Your task to perform on an android device: Clear the shopping cart on bestbuy.com. Search for beats solo 3 on bestbuy.com, select the first entry, and add it to the cart. Image 0: 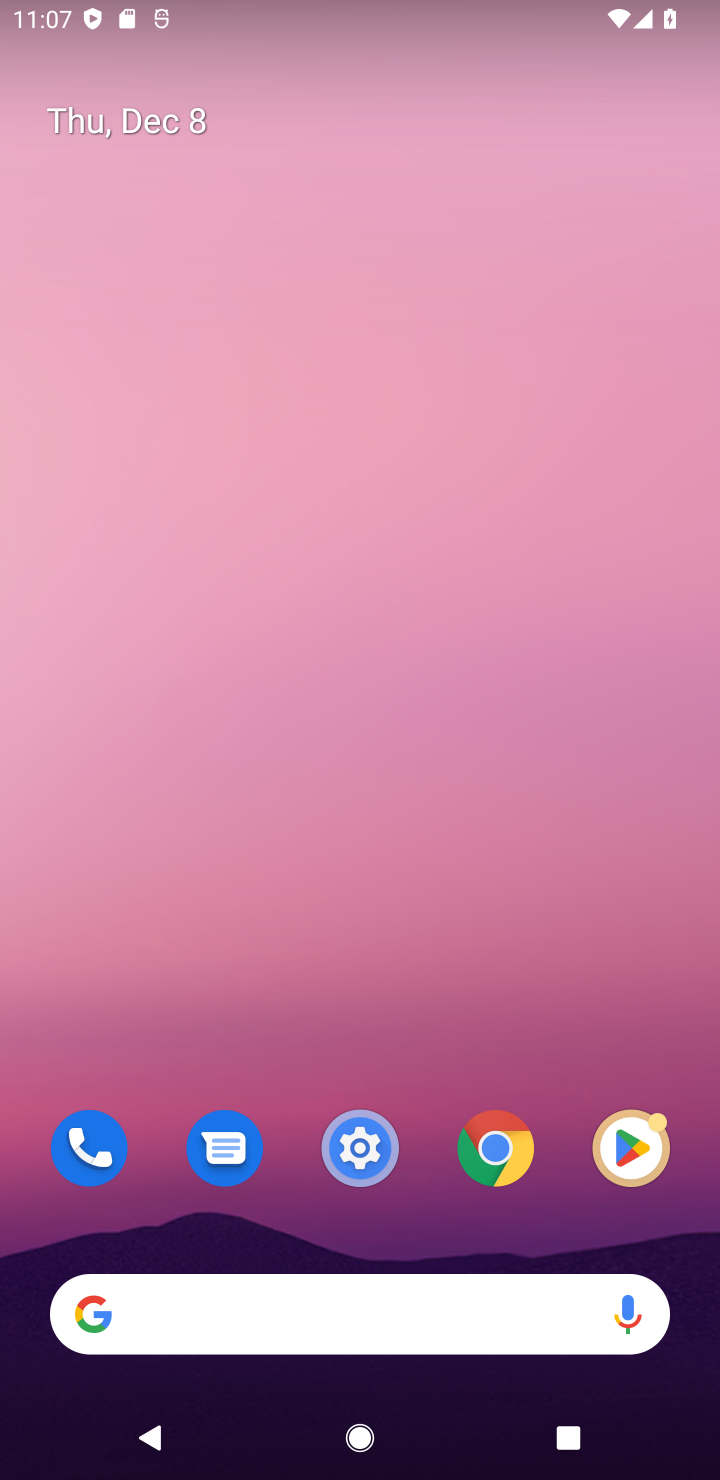
Step 0: click (276, 1279)
Your task to perform on an android device: Clear the shopping cart on bestbuy.com. Search for beats solo 3 on bestbuy.com, select the first entry, and add it to the cart. Image 1: 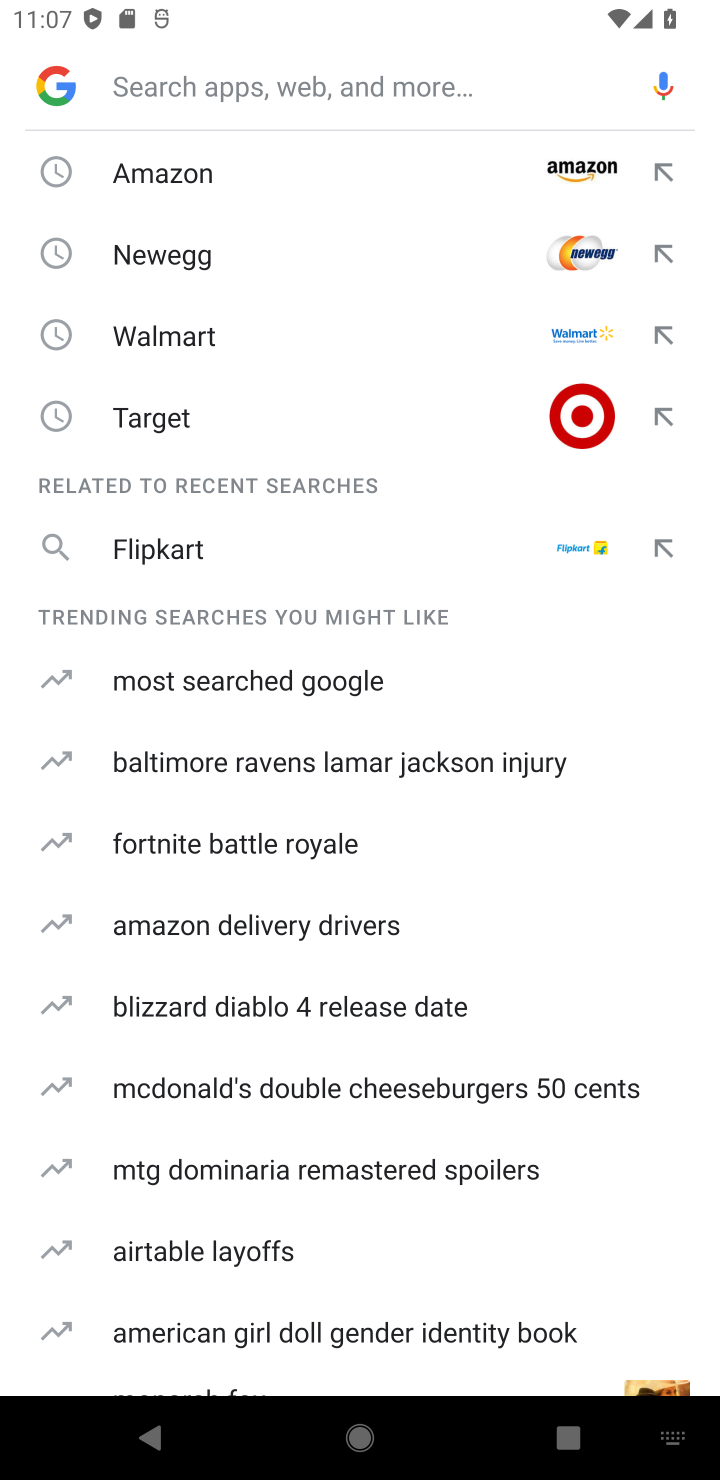
Step 1: type "bestbuy.com"
Your task to perform on an android device: Clear the shopping cart on bestbuy.com. Search for beats solo 3 on bestbuy.com, select the first entry, and add it to the cart. Image 2: 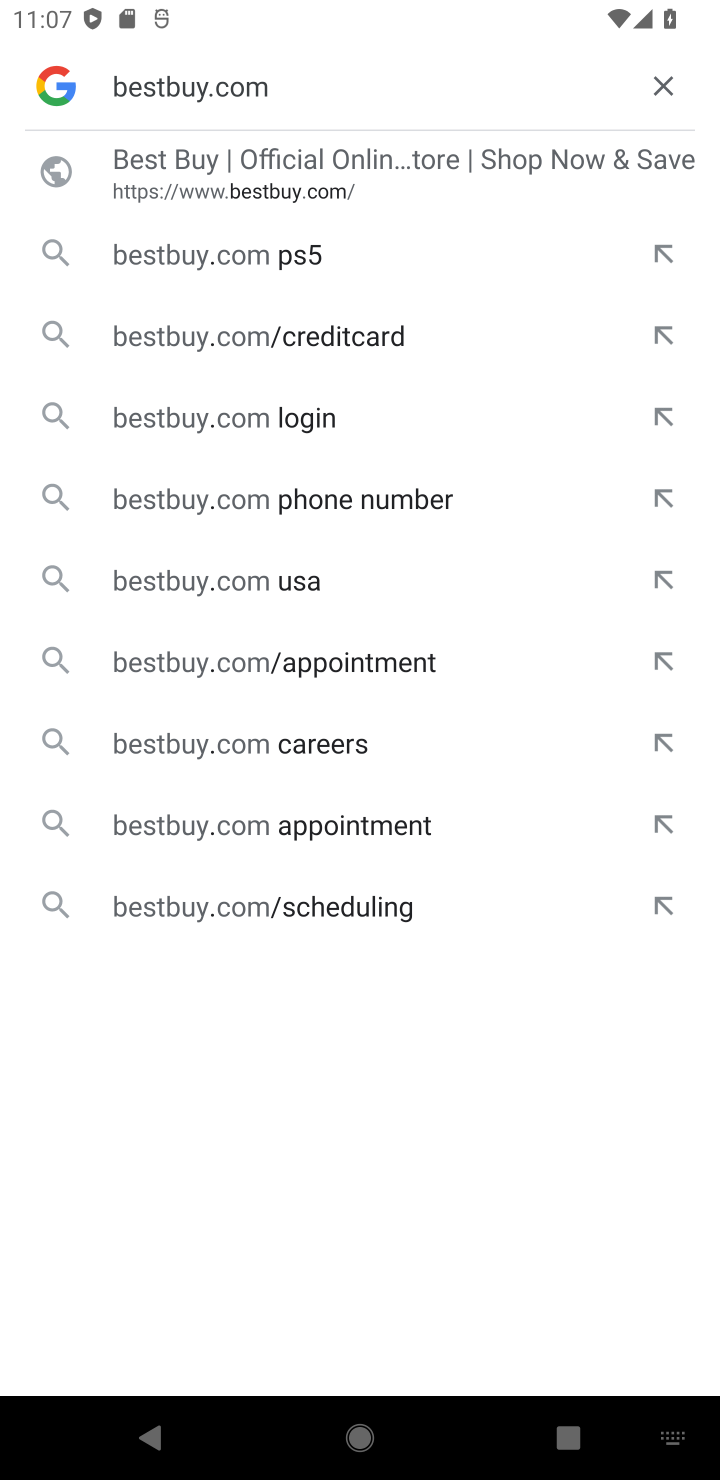
Step 2: click (207, 165)
Your task to perform on an android device: Clear the shopping cart on bestbuy.com. Search for beats solo 3 on bestbuy.com, select the first entry, and add it to the cart. Image 3: 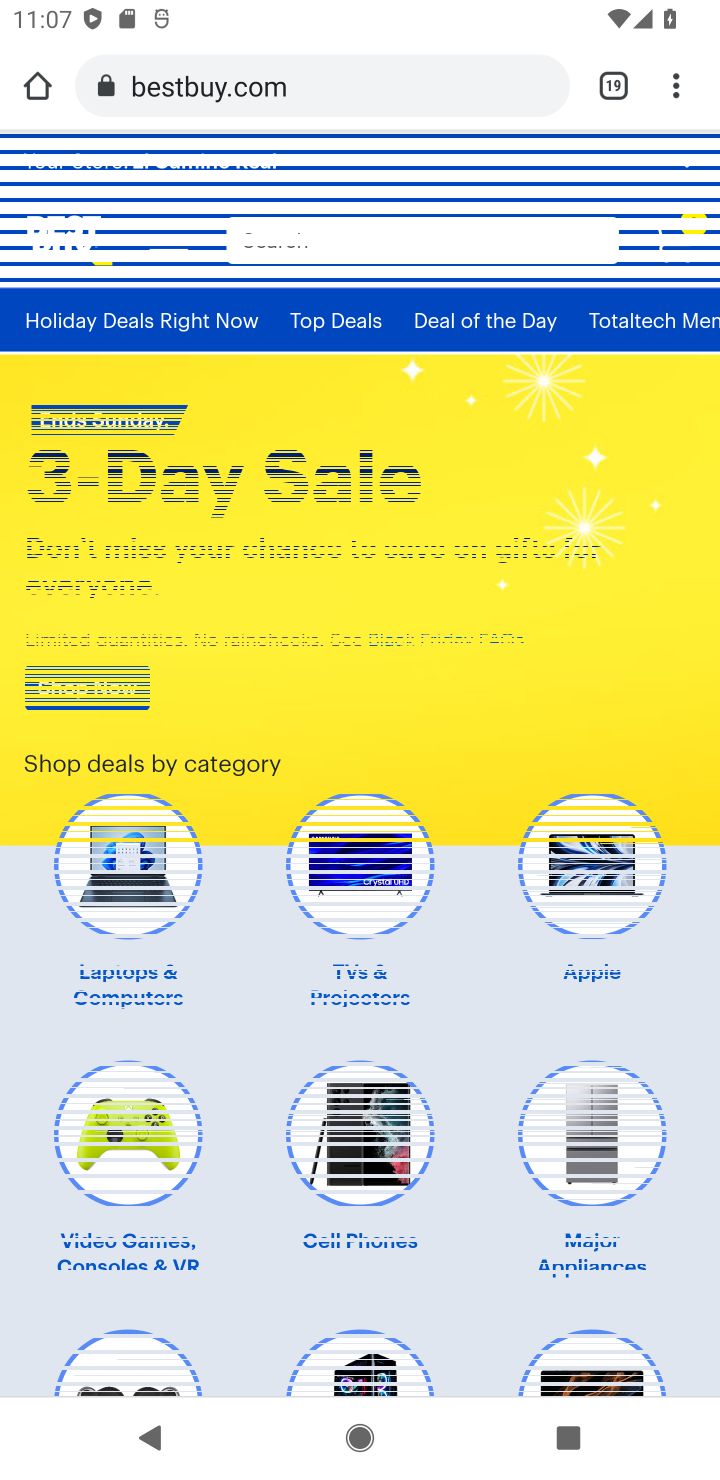
Step 3: click (685, 233)
Your task to perform on an android device: Clear the shopping cart on bestbuy.com. Search for beats solo 3 on bestbuy.com, select the first entry, and add it to the cart. Image 4: 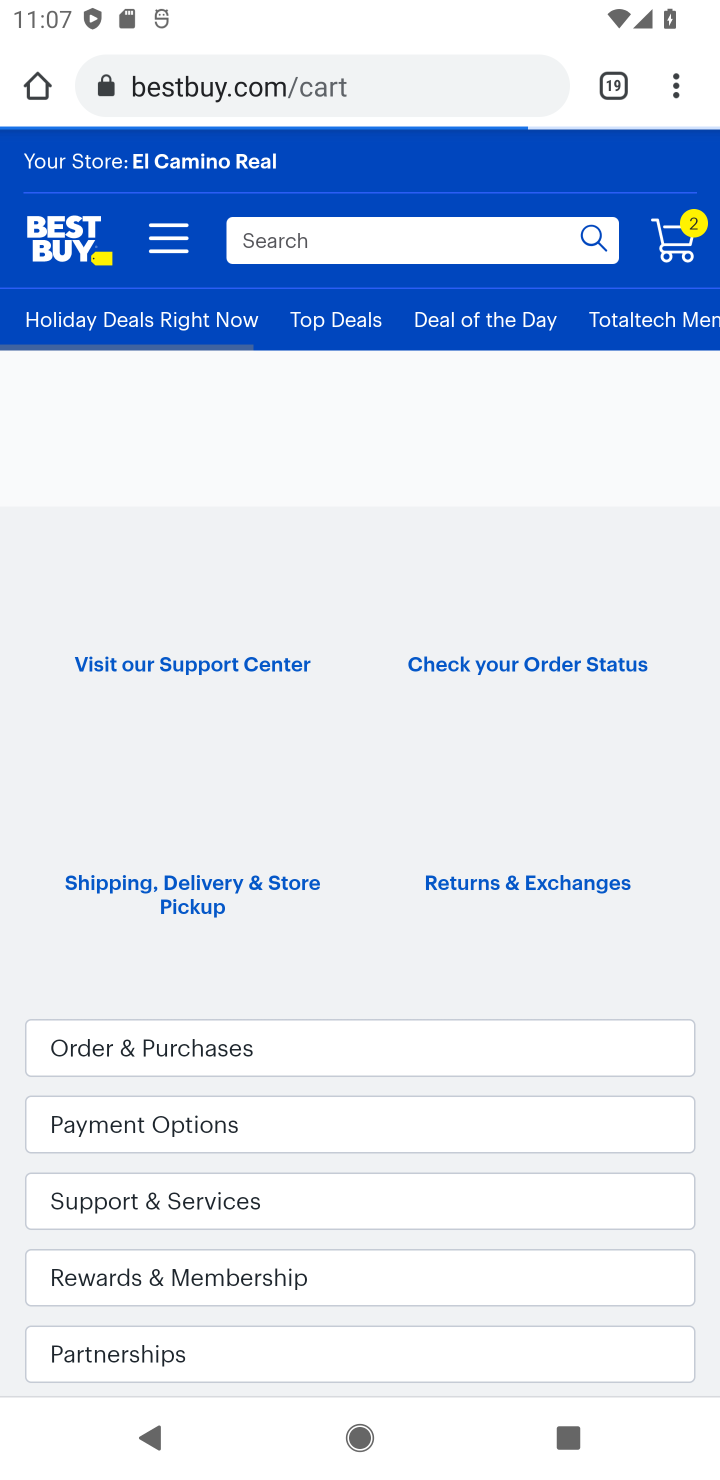
Step 4: click (675, 247)
Your task to perform on an android device: Clear the shopping cart on bestbuy.com. Search for beats solo 3 on bestbuy.com, select the first entry, and add it to the cart. Image 5: 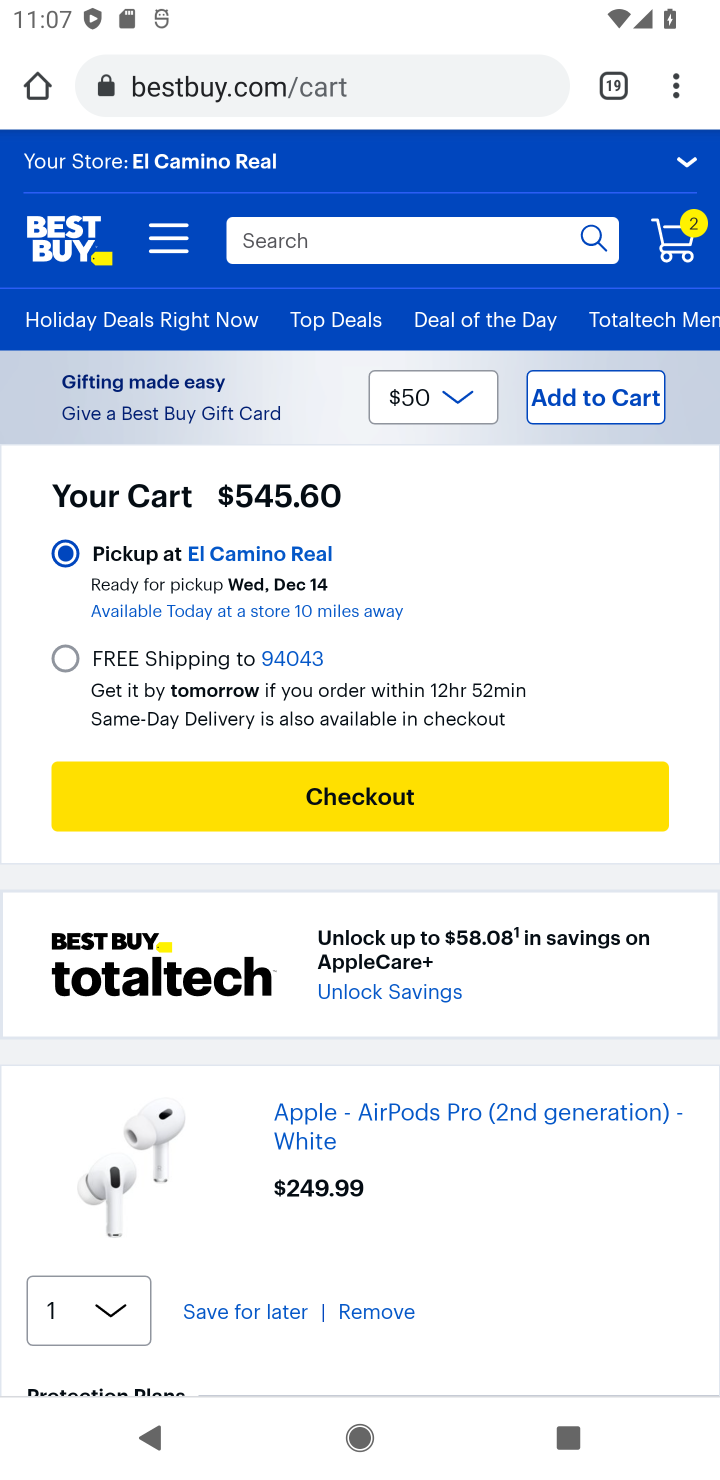
Step 5: drag from (537, 608) to (530, 493)
Your task to perform on an android device: Clear the shopping cart on bestbuy.com. Search for beats solo 3 on bestbuy.com, select the first entry, and add it to the cart. Image 6: 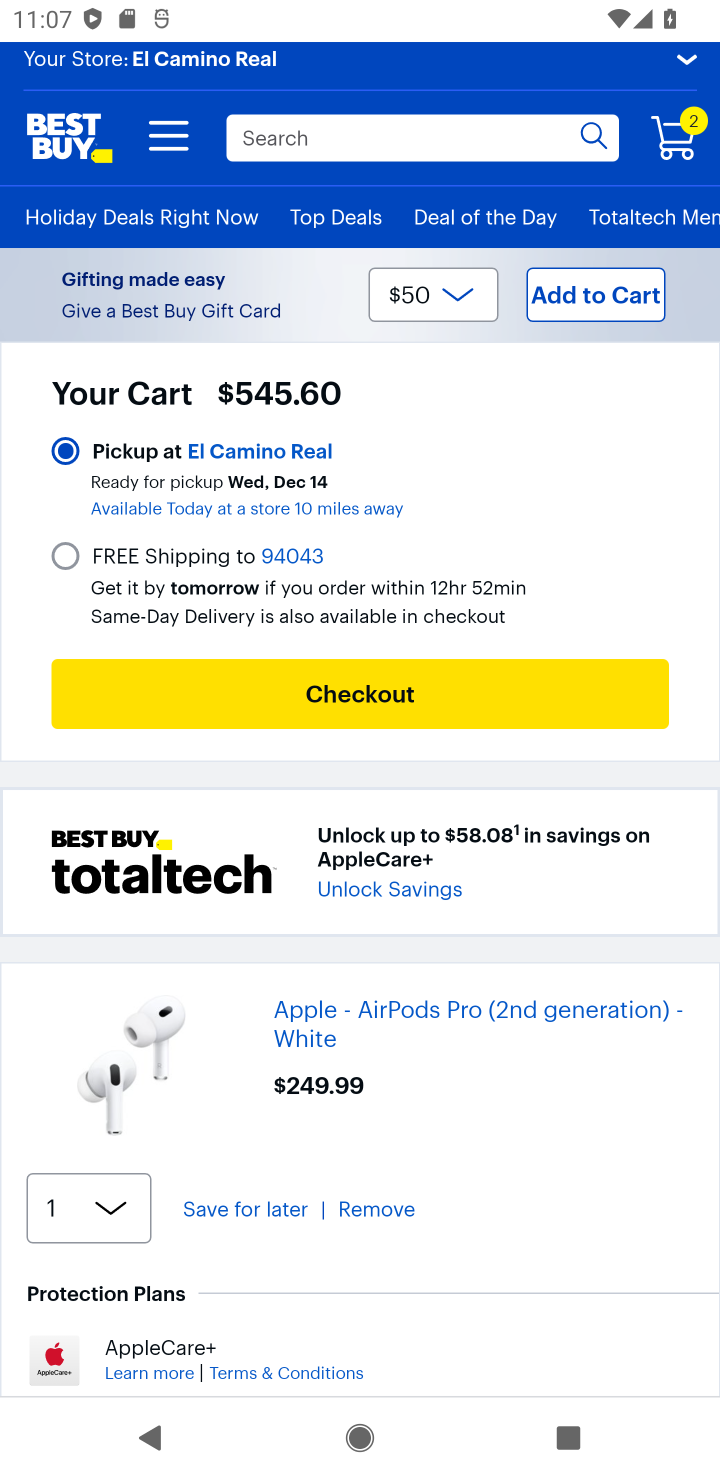
Step 6: click (363, 1204)
Your task to perform on an android device: Clear the shopping cart on bestbuy.com. Search for beats solo 3 on bestbuy.com, select the first entry, and add it to the cart. Image 7: 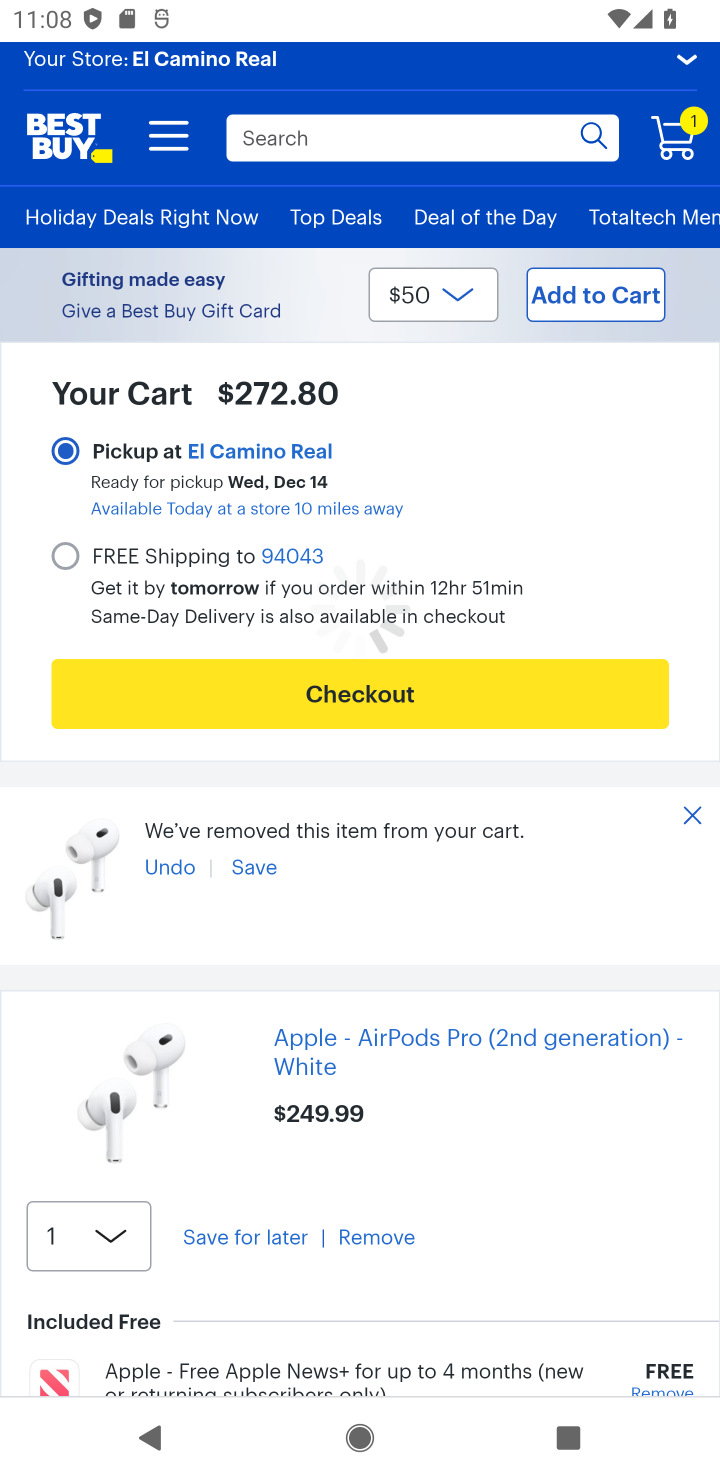
Step 7: click (384, 1237)
Your task to perform on an android device: Clear the shopping cart on bestbuy.com. Search for beats solo 3 on bestbuy.com, select the first entry, and add it to the cart. Image 8: 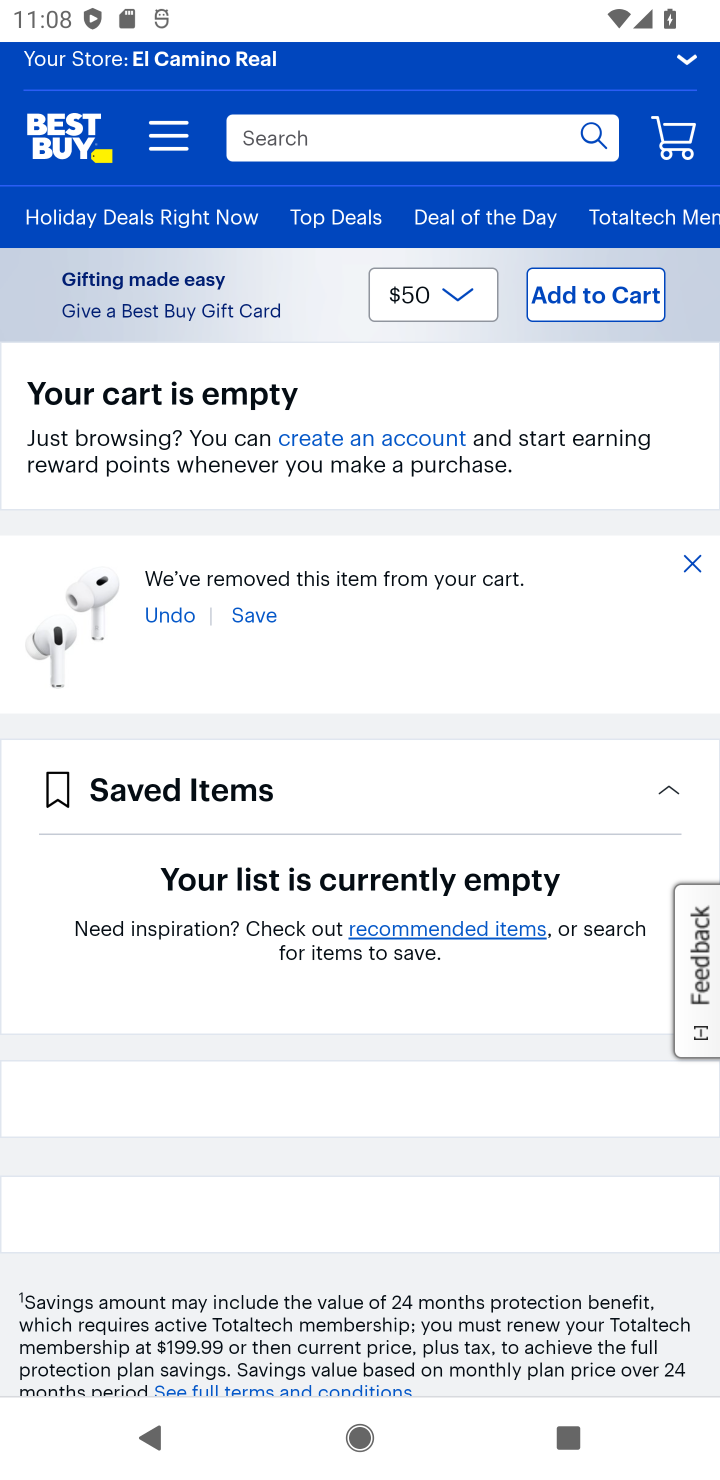
Step 8: click (289, 136)
Your task to perform on an android device: Clear the shopping cart on bestbuy.com. Search for beats solo 3 on bestbuy.com, select the first entry, and add it to the cart. Image 9: 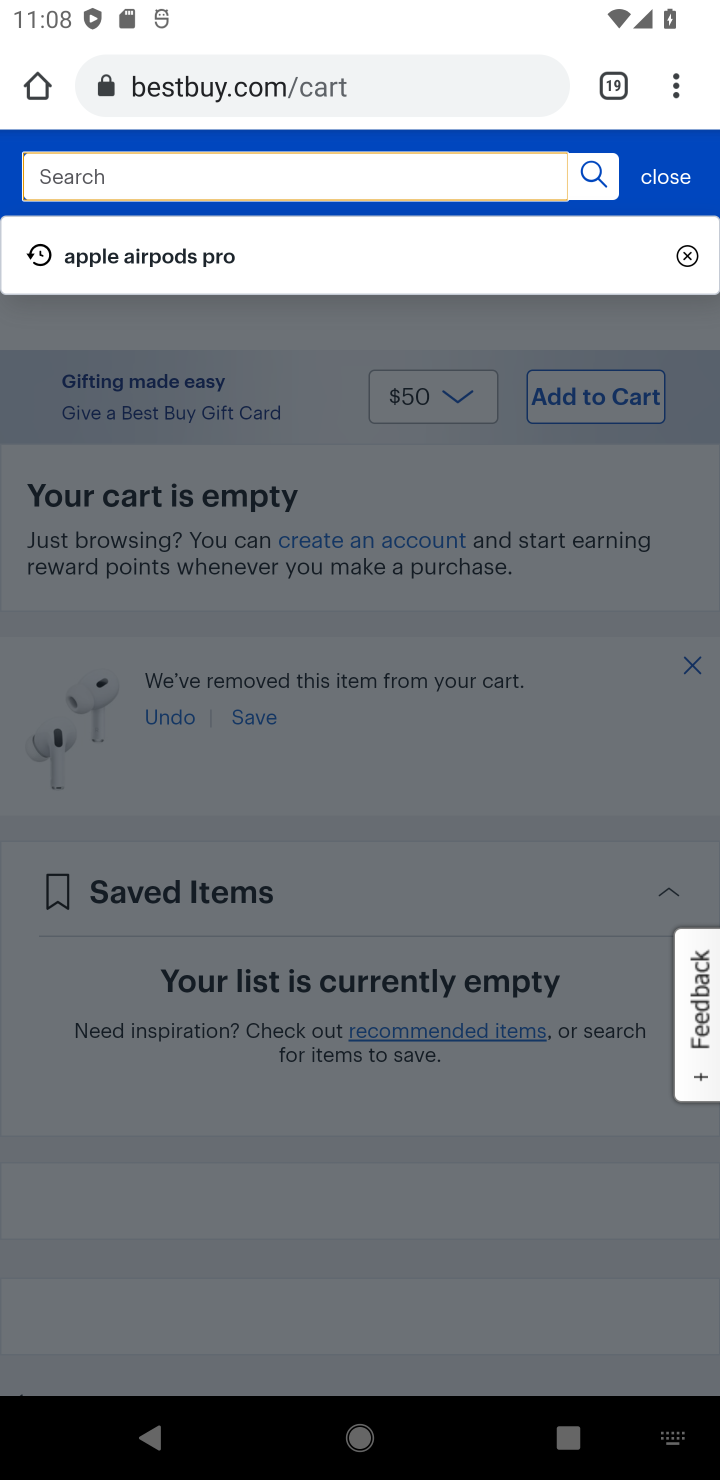
Step 9: type "beats solo 3 "
Your task to perform on an android device: Clear the shopping cart on bestbuy.com. Search for beats solo 3 on bestbuy.com, select the first entry, and add it to the cart. Image 10: 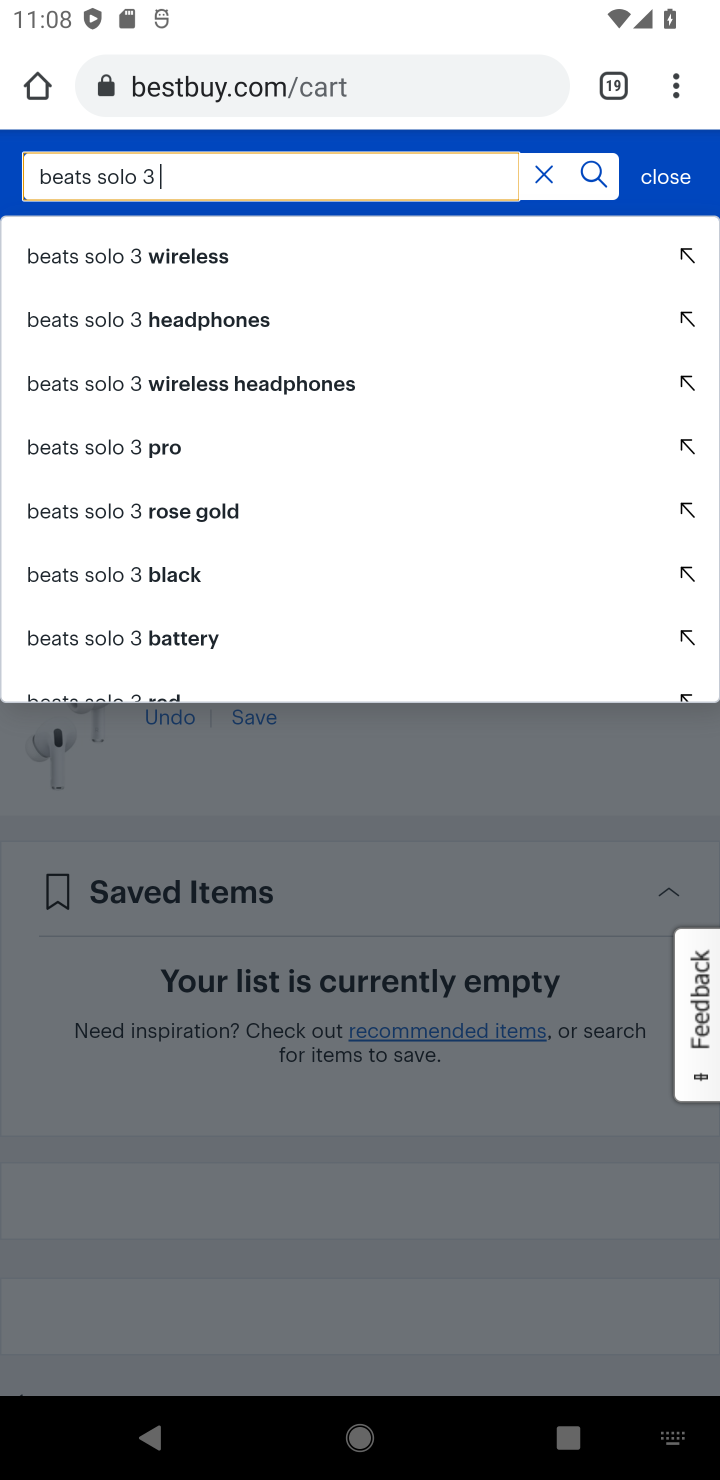
Step 10: click (589, 184)
Your task to perform on an android device: Clear the shopping cart on bestbuy.com. Search for beats solo 3 on bestbuy.com, select the first entry, and add it to the cart. Image 11: 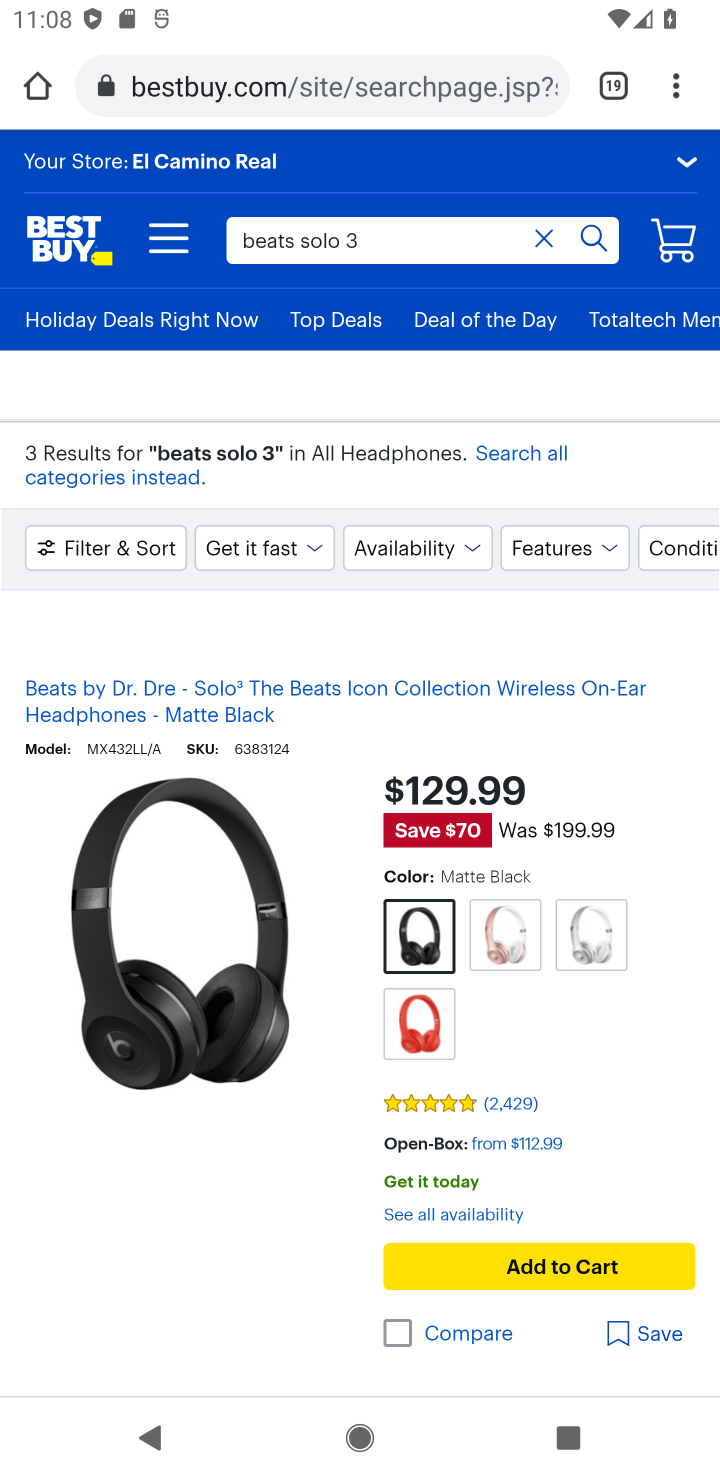
Step 11: click (519, 1263)
Your task to perform on an android device: Clear the shopping cart on bestbuy.com. Search for beats solo 3 on bestbuy.com, select the first entry, and add it to the cart. Image 12: 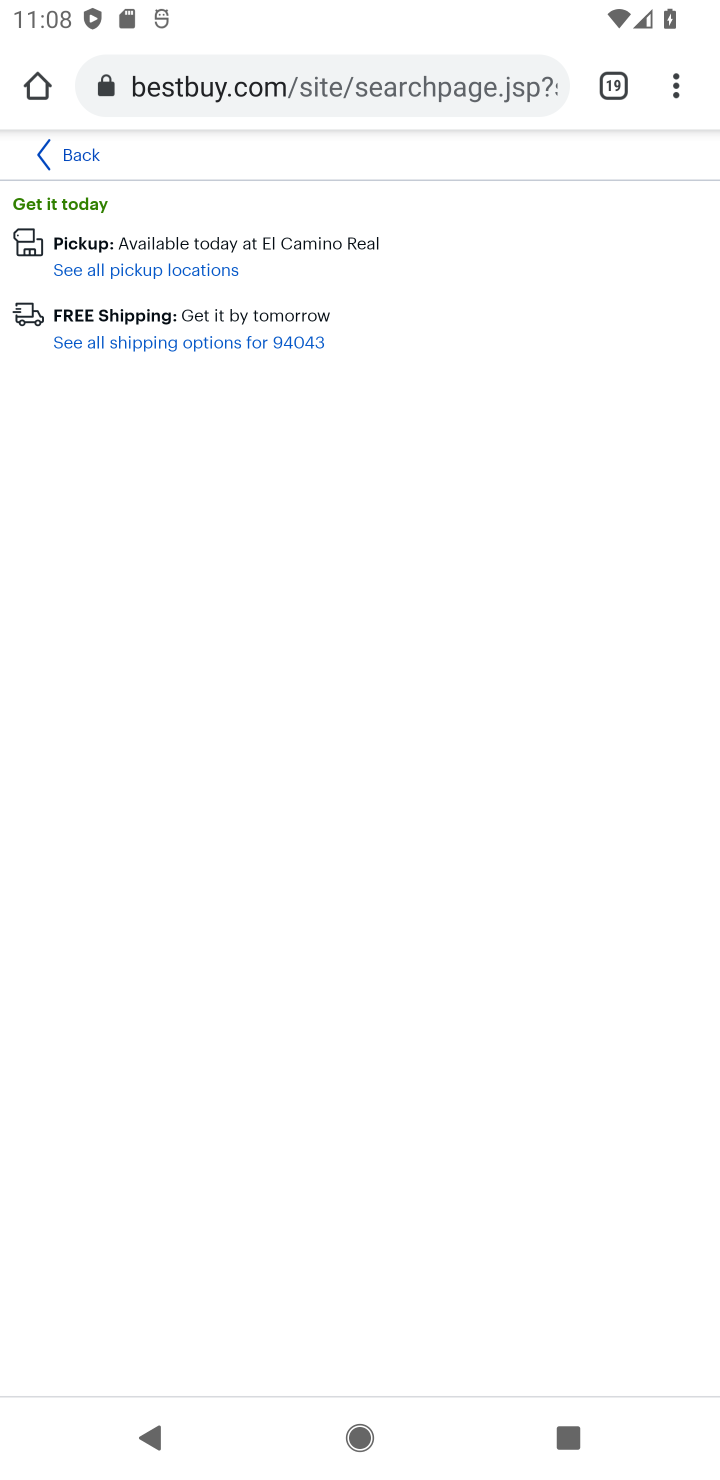
Step 12: click (53, 151)
Your task to perform on an android device: Clear the shopping cart on bestbuy.com. Search for beats solo 3 on bestbuy.com, select the first entry, and add it to the cart. Image 13: 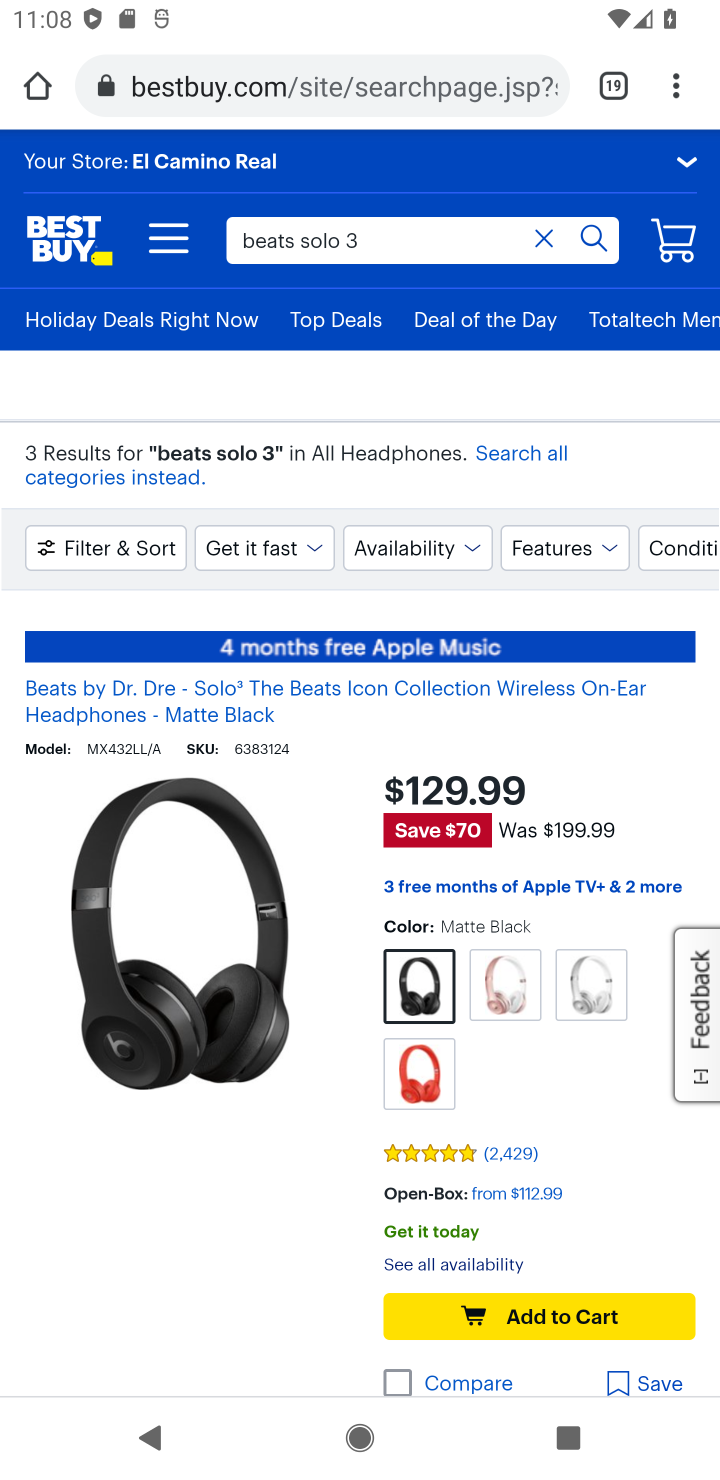
Step 13: click (530, 1318)
Your task to perform on an android device: Clear the shopping cart on bestbuy.com. Search for beats solo 3 on bestbuy.com, select the first entry, and add it to the cart. Image 14: 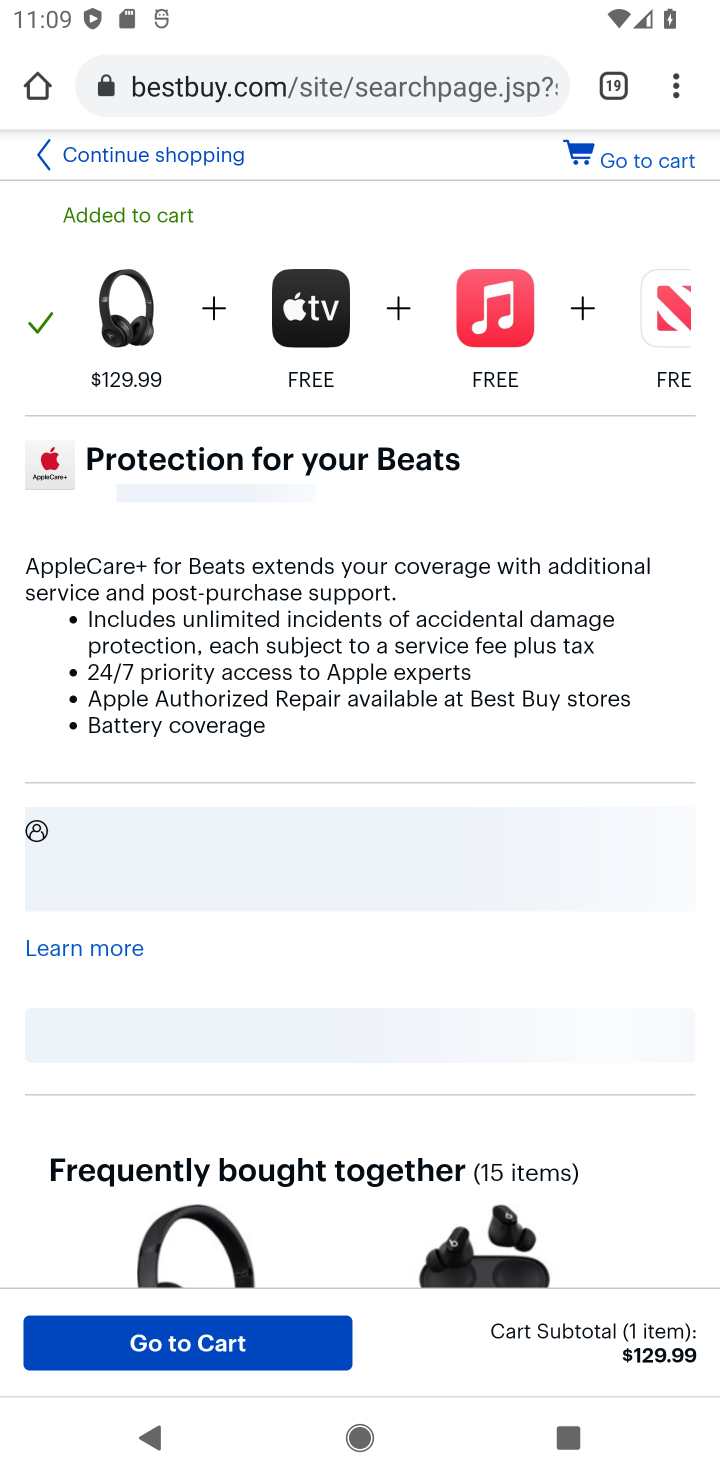
Step 14: task complete